Your task to perform on an android device: turn vacation reply on in the gmail app Image 0: 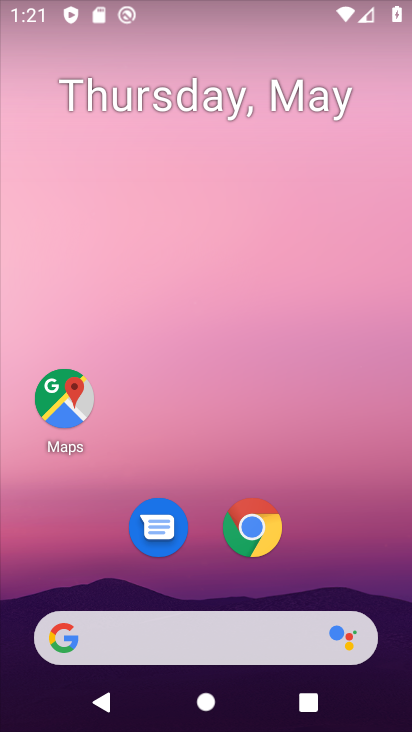
Step 0: press home button
Your task to perform on an android device: turn vacation reply on in the gmail app Image 1: 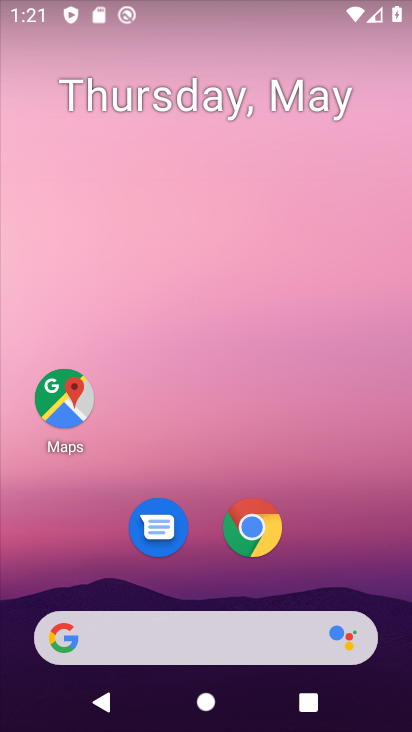
Step 1: drag from (210, 561) to (223, 96)
Your task to perform on an android device: turn vacation reply on in the gmail app Image 2: 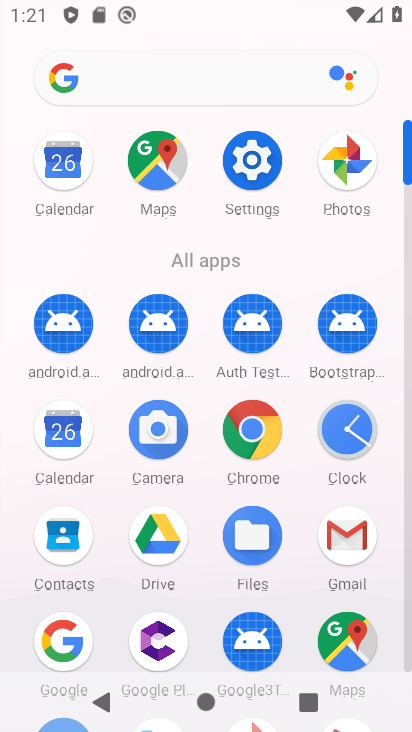
Step 2: click (350, 531)
Your task to perform on an android device: turn vacation reply on in the gmail app Image 3: 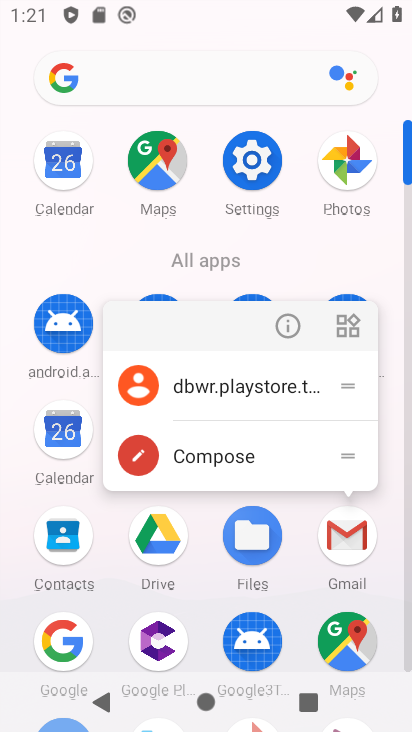
Step 3: click (296, 315)
Your task to perform on an android device: turn vacation reply on in the gmail app Image 4: 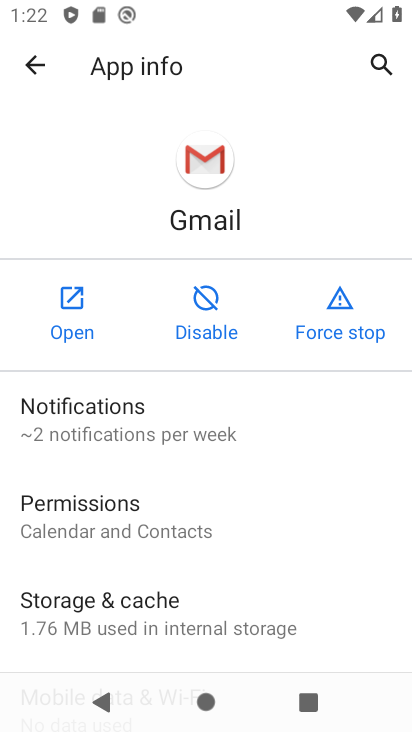
Step 4: click (69, 312)
Your task to perform on an android device: turn vacation reply on in the gmail app Image 5: 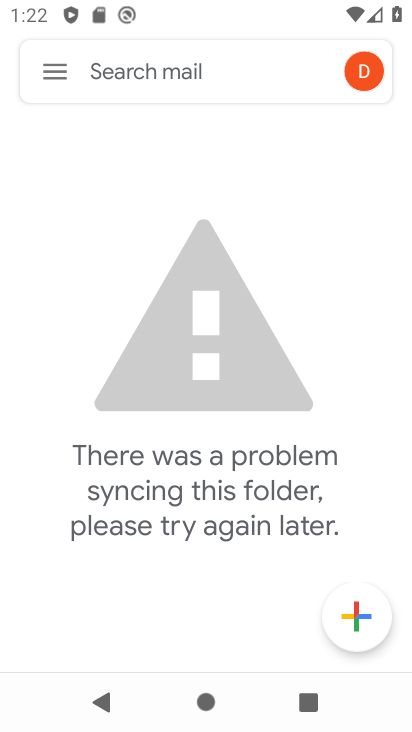
Step 5: click (39, 77)
Your task to perform on an android device: turn vacation reply on in the gmail app Image 6: 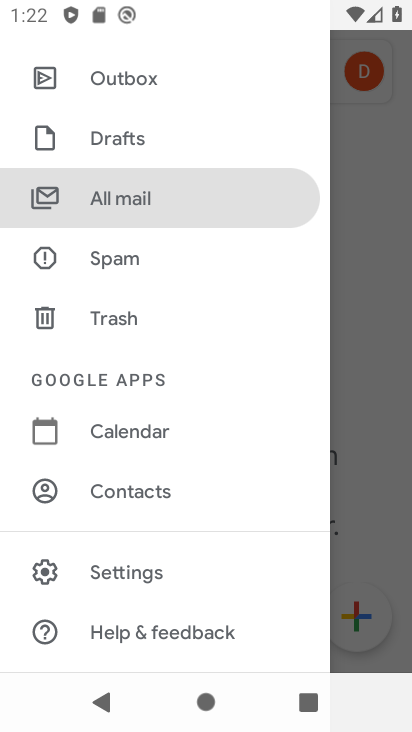
Step 6: click (155, 593)
Your task to perform on an android device: turn vacation reply on in the gmail app Image 7: 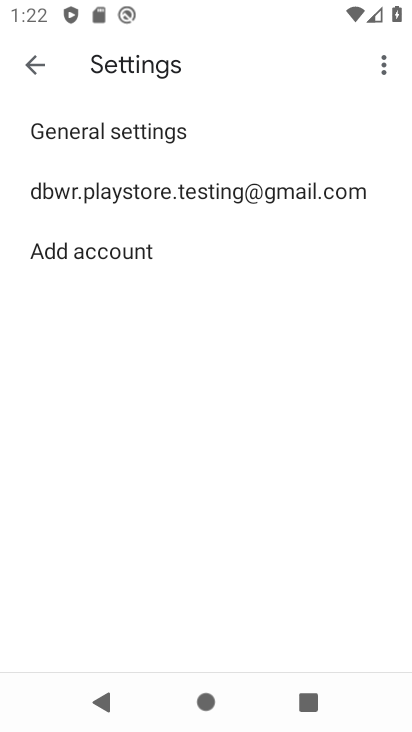
Step 7: click (198, 191)
Your task to perform on an android device: turn vacation reply on in the gmail app Image 8: 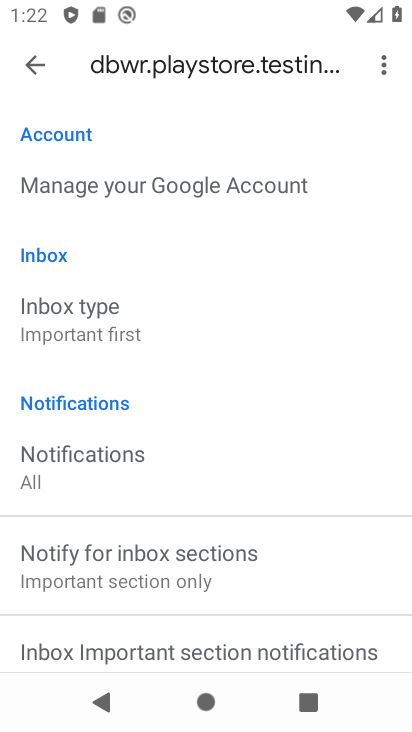
Step 8: drag from (133, 526) to (233, 172)
Your task to perform on an android device: turn vacation reply on in the gmail app Image 9: 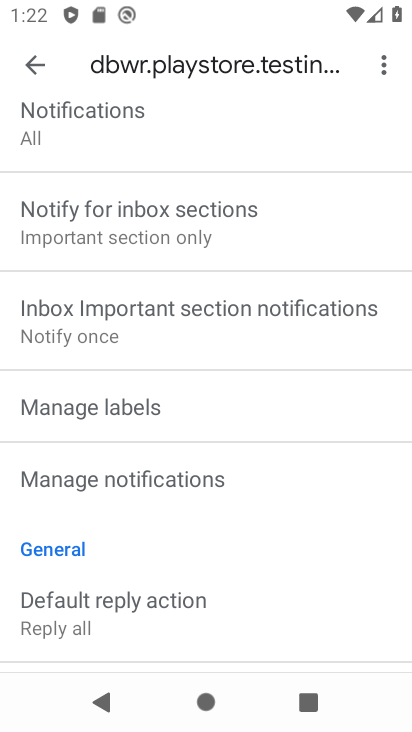
Step 9: drag from (186, 547) to (280, 84)
Your task to perform on an android device: turn vacation reply on in the gmail app Image 10: 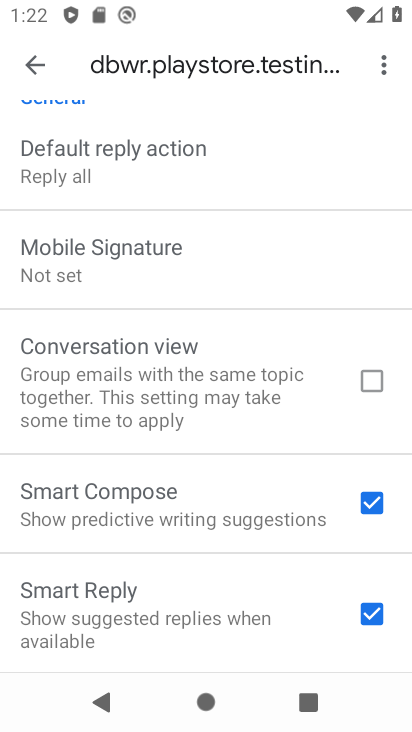
Step 10: drag from (187, 574) to (252, 219)
Your task to perform on an android device: turn vacation reply on in the gmail app Image 11: 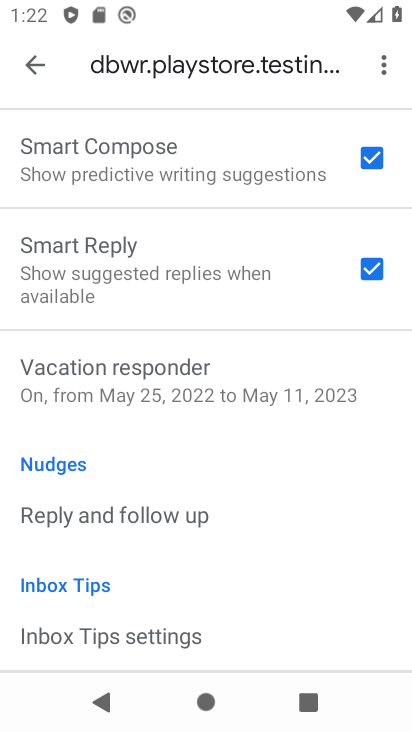
Step 11: click (132, 409)
Your task to perform on an android device: turn vacation reply on in the gmail app Image 12: 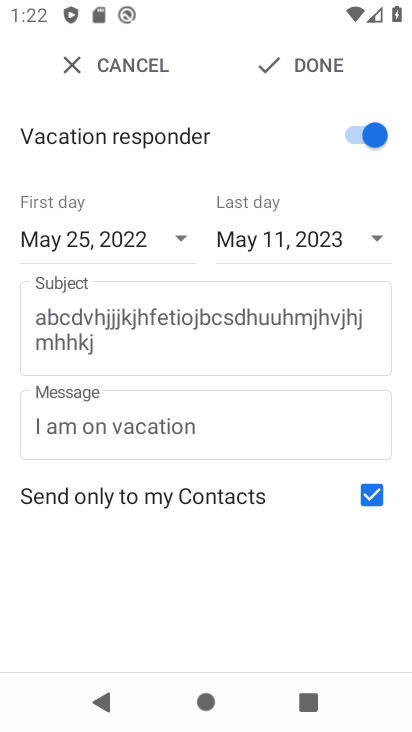
Step 12: click (294, 46)
Your task to perform on an android device: turn vacation reply on in the gmail app Image 13: 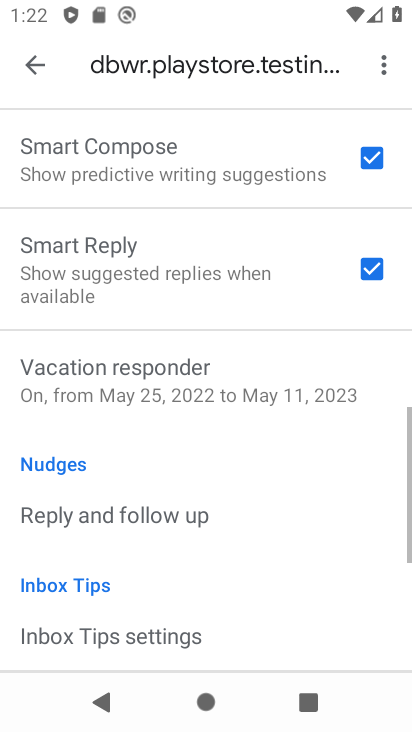
Step 13: task complete